Your task to perform on an android device: Open the stopwatch Image 0: 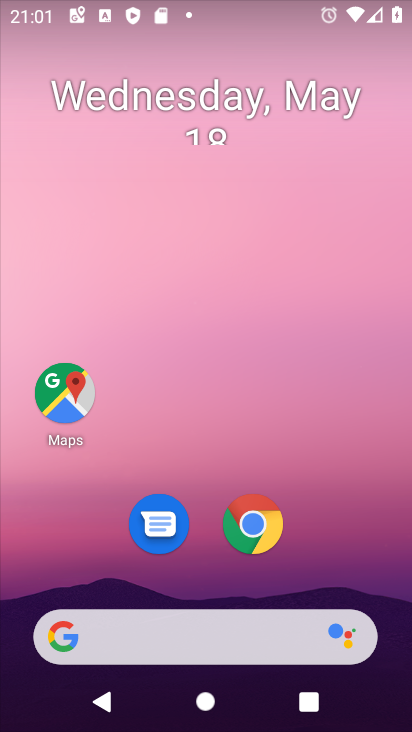
Step 0: drag from (339, 490) to (256, 27)
Your task to perform on an android device: Open the stopwatch Image 1: 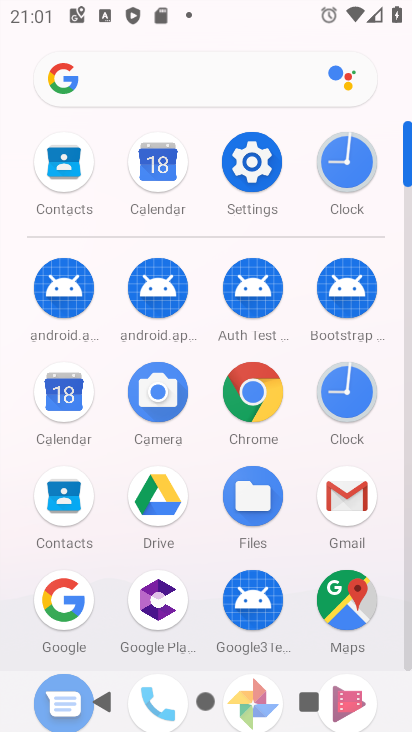
Step 1: click (360, 174)
Your task to perform on an android device: Open the stopwatch Image 2: 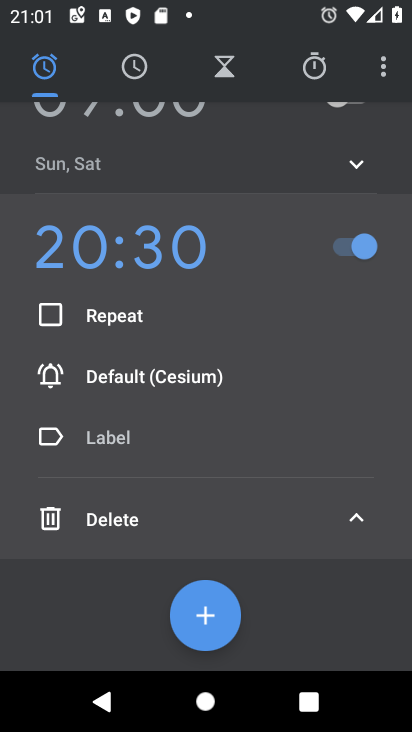
Step 2: click (323, 65)
Your task to perform on an android device: Open the stopwatch Image 3: 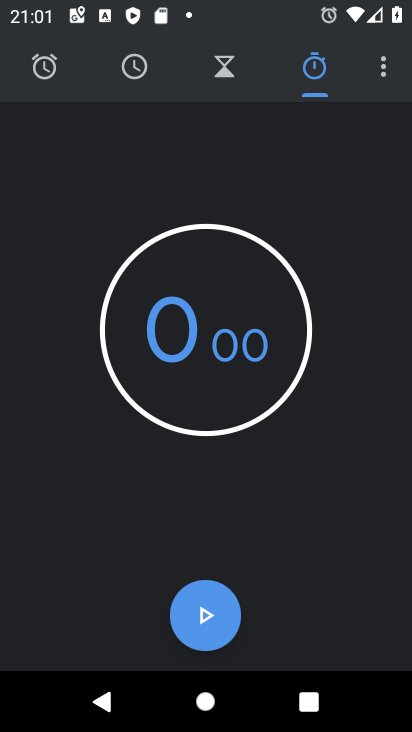
Step 3: task complete